Your task to perform on an android device: all mails in gmail Image 0: 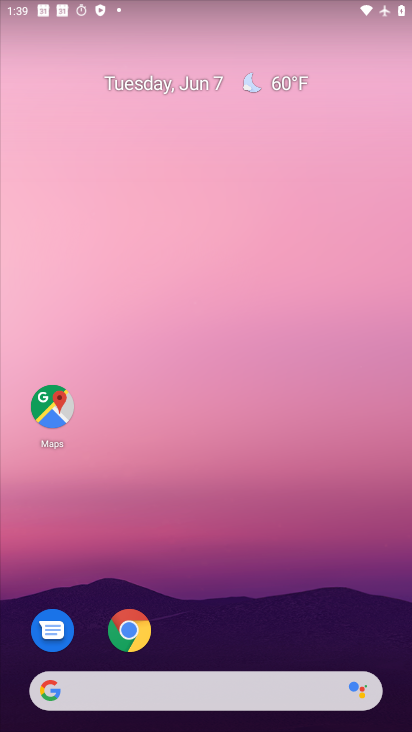
Step 0: drag from (353, 621) to (215, 66)
Your task to perform on an android device: all mails in gmail Image 1: 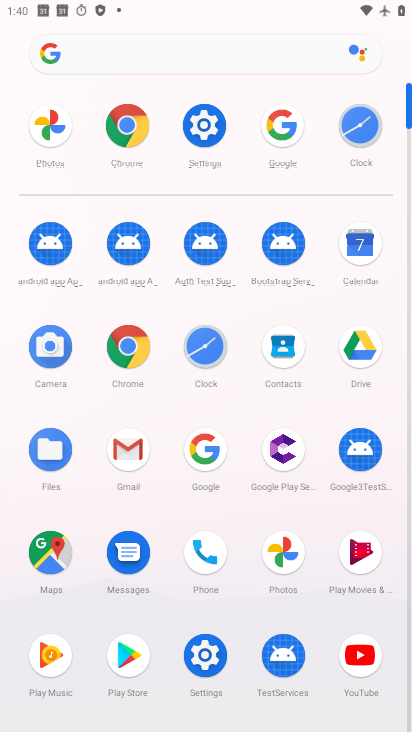
Step 1: click (215, 66)
Your task to perform on an android device: all mails in gmail Image 2: 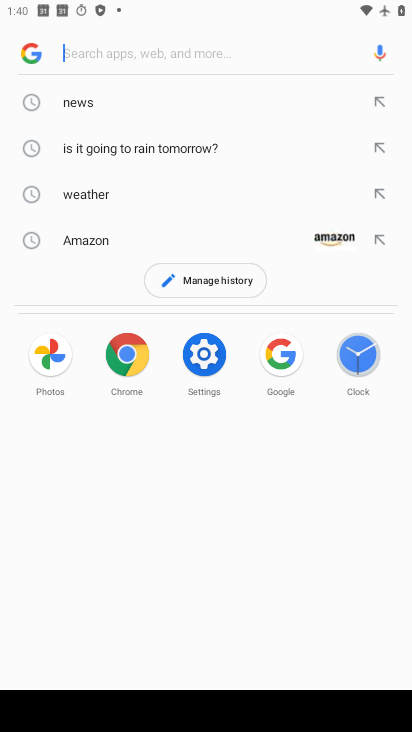
Step 2: press home button
Your task to perform on an android device: all mails in gmail Image 3: 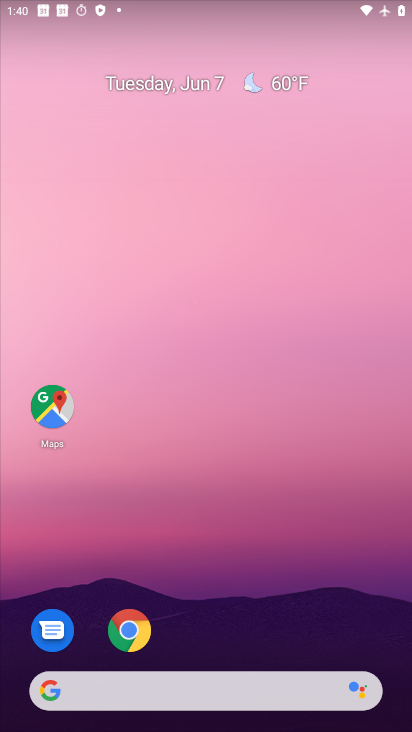
Step 3: drag from (353, 641) to (327, 78)
Your task to perform on an android device: all mails in gmail Image 4: 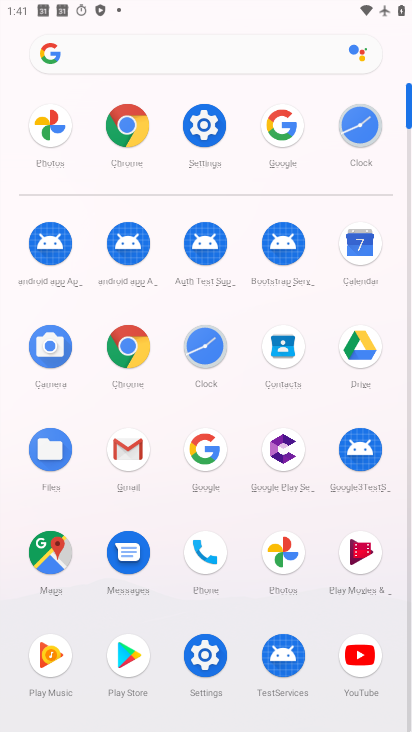
Step 4: click (145, 454)
Your task to perform on an android device: all mails in gmail Image 5: 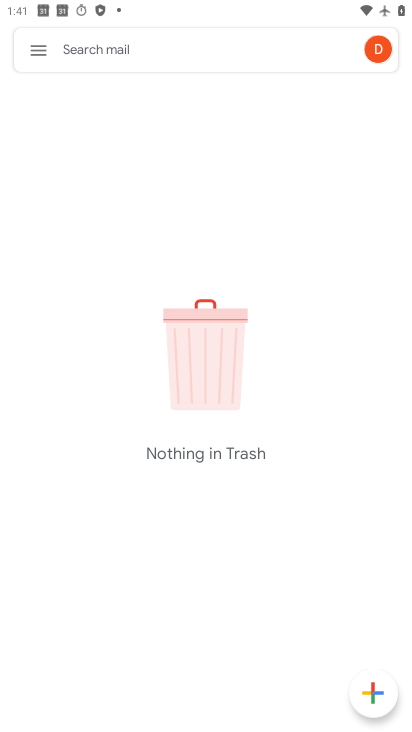
Step 5: click (39, 36)
Your task to perform on an android device: all mails in gmail Image 6: 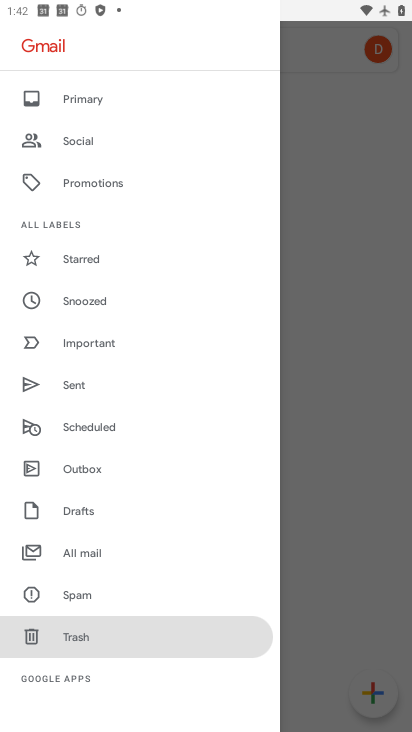
Step 6: click (61, 561)
Your task to perform on an android device: all mails in gmail Image 7: 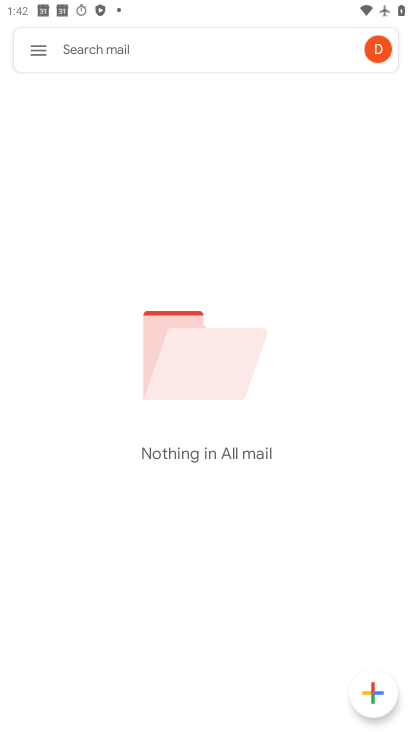
Step 7: task complete